Your task to perform on an android device: Open display settings Image 0: 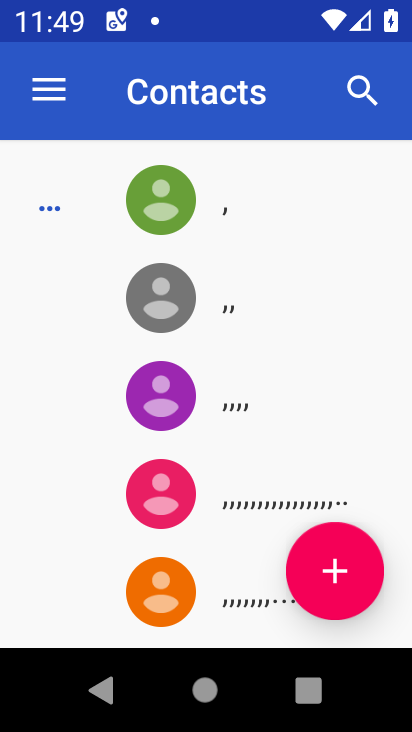
Step 0: press home button
Your task to perform on an android device: Open display settings Image 1: 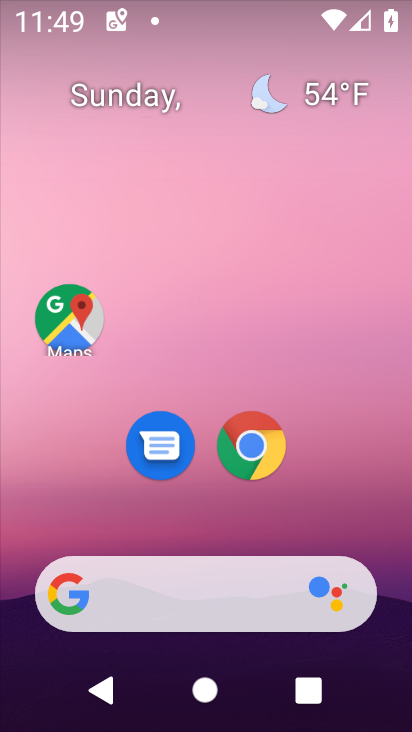
Step 1: drag from (336, 485) to (264, 145)
Your task to perform on an android device: Open display settings Image 2: 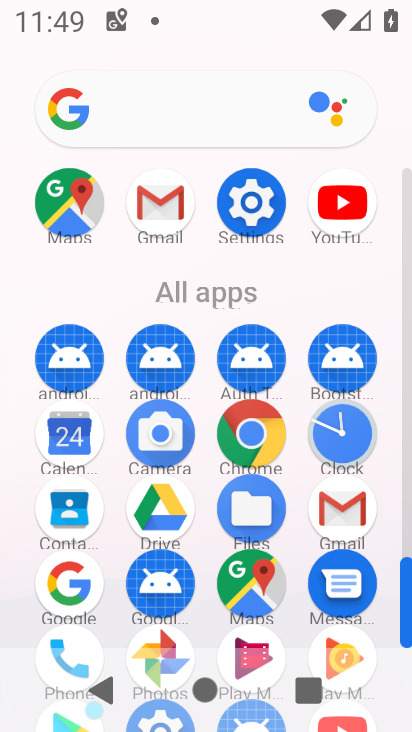
Step 2: drag from (369, 300) to (356, 49)
Your task to perform on an android device: Open display settings Image 3: 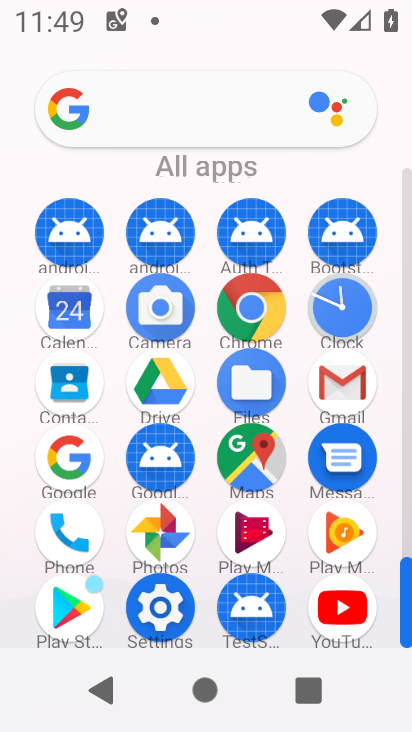
Step 3: click (173, 604)
Your task to perform on an android device: Open display settings Image 4: 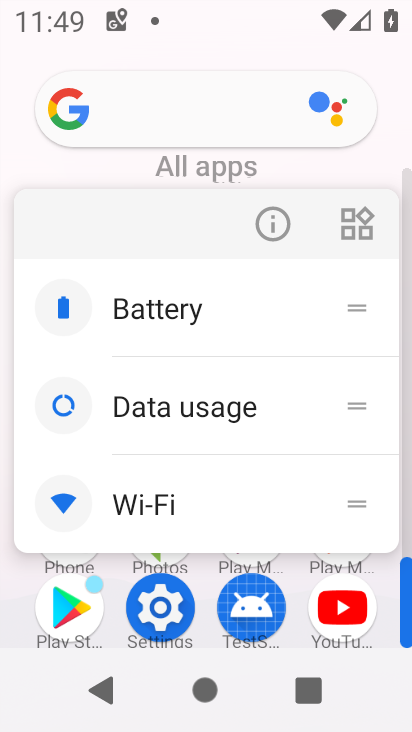
Step 4: click (145, 614)
Your task to perform on an android device: Open display settings Image 5: 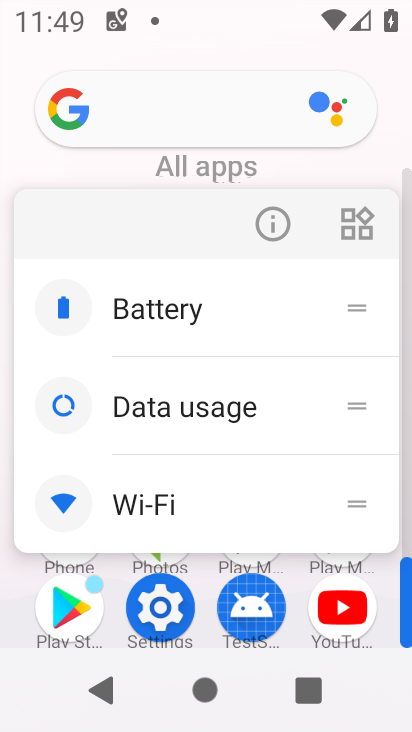
Step 5: click (164, 617)
Your task to perform on an android device: Open display settings Image 6: 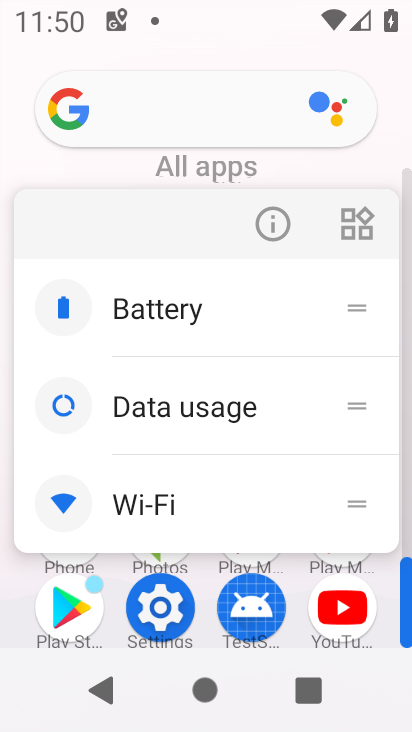
Step 6: click (168, 617)
Your task to perform on an android device: Open display settings Image 7: 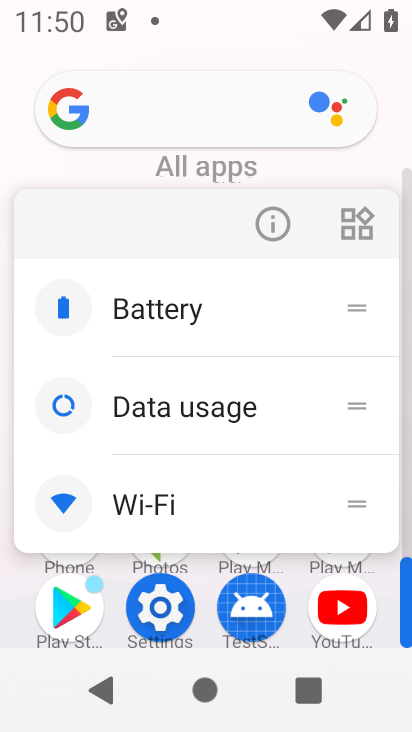
Step 7: click (183, 606)
Your task to perform on an android device: Open display settings Image 8: 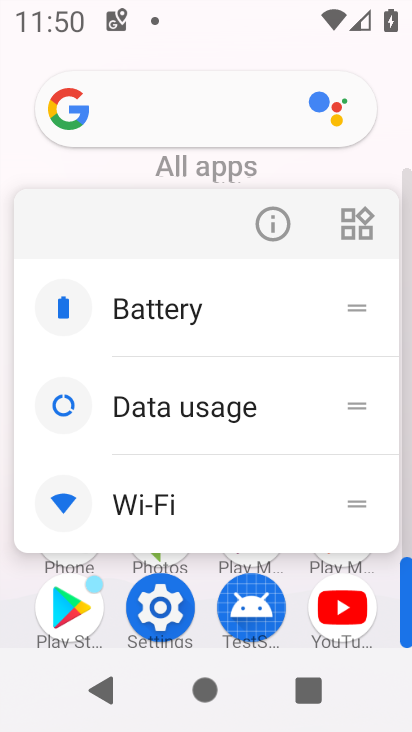
Step 8: click (185, 605)
Your task to perform on an android device: Open display settings Image 9: 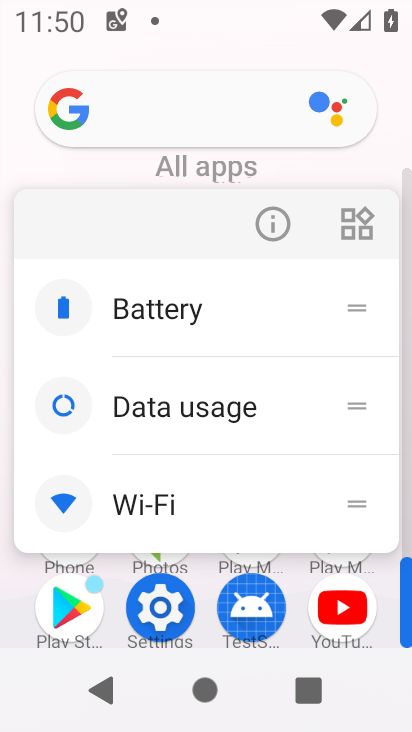
Step 9: click (189, 608)
Your task to perform on an android device: Open display settings Image 10: 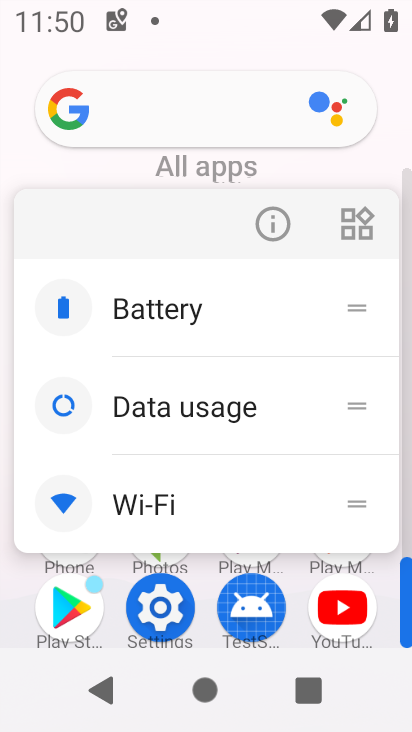
Step 10: click (179, 630)
Your task to perform on an android device: Open display settings Image 11: 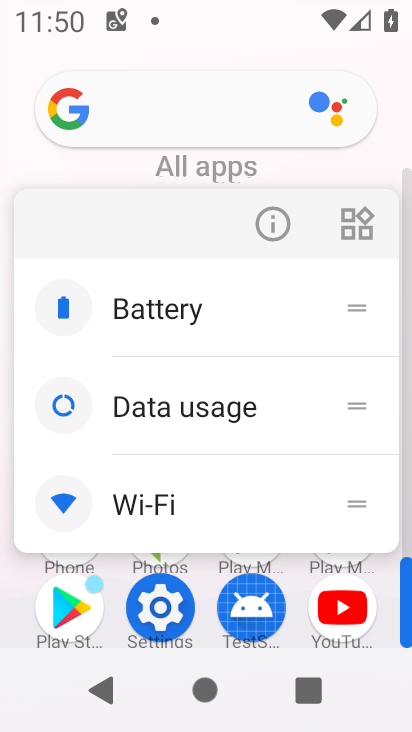
Step 11: click (171, 630)
Your task to perform on an android device: Open display settings Image 12: 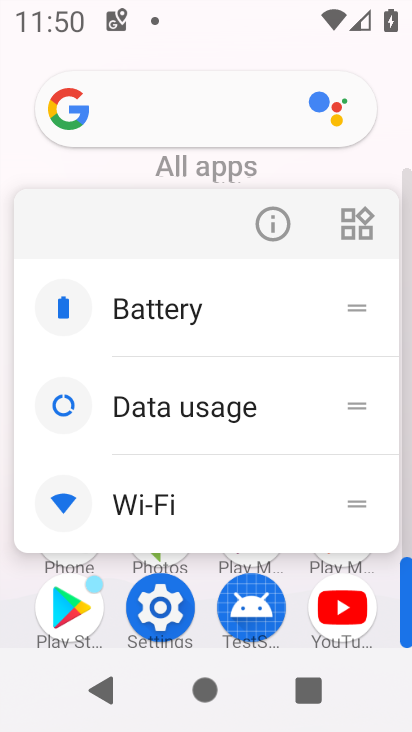
Step 12: task complete